Your task to perform on an android device: turn on the 24-hour format for clock Image 0: 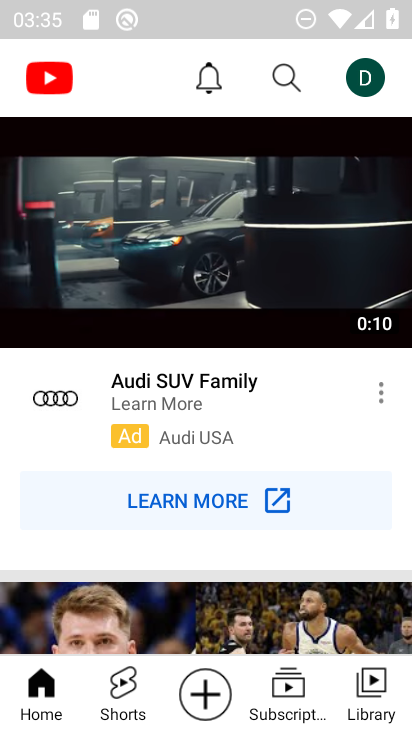
Step 0: press home button
Your task to perform on an android device: turn on the 24-hour format for clock Image 1: 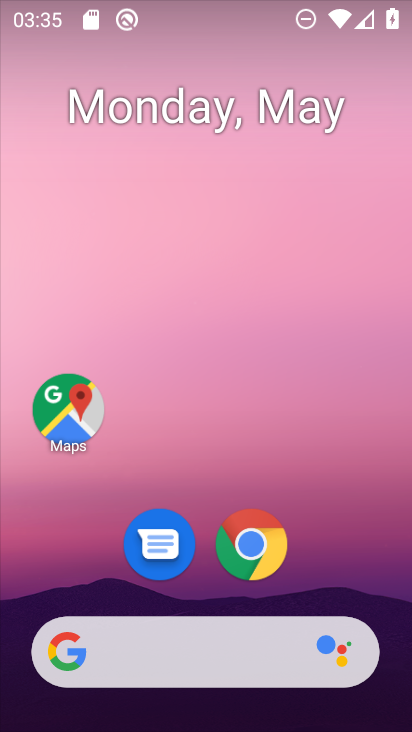
Step 1: drag from (370, 510) to (359, 174)
Your task to perform on an android device: turn on the 24-hour format for clock Image 2: 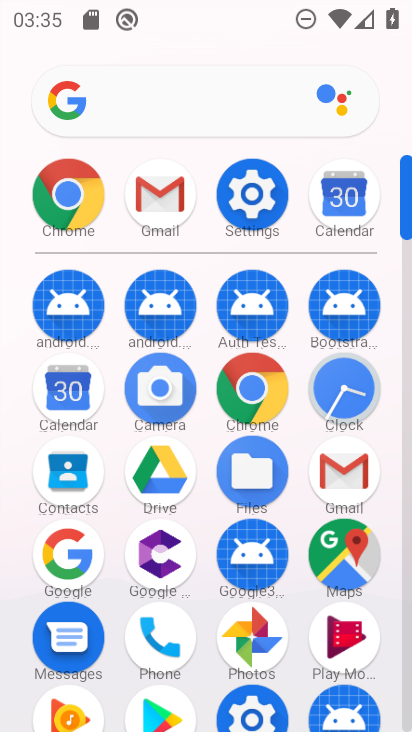
Step 2: click (344, 415)
Your task to perform on an android device: turn on the 24-hour format for clock Image 3: 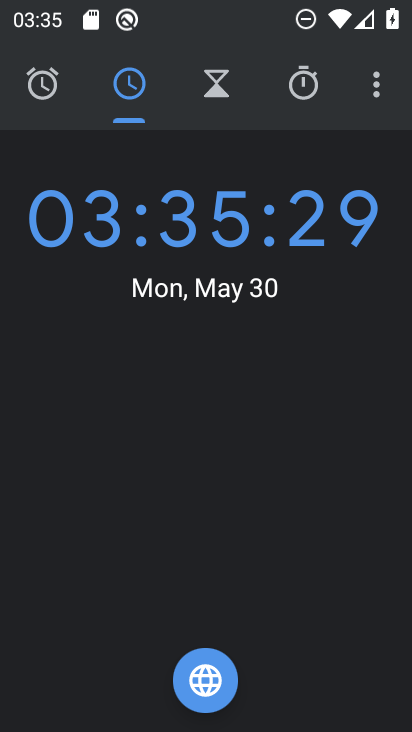
Step 3: click (376, 104)
Your task to perform on an android device: turn on the 24-hour format for clock Image 4: 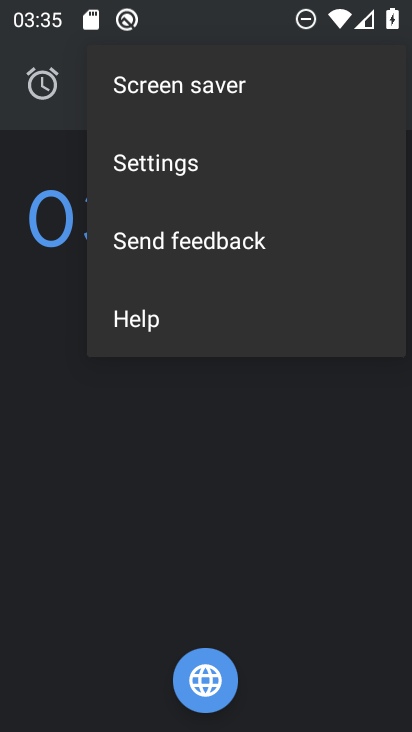
Step 4: click (205, 182)
Your task to perform on an android device: turn on the 24-hour format for clock Image 5: 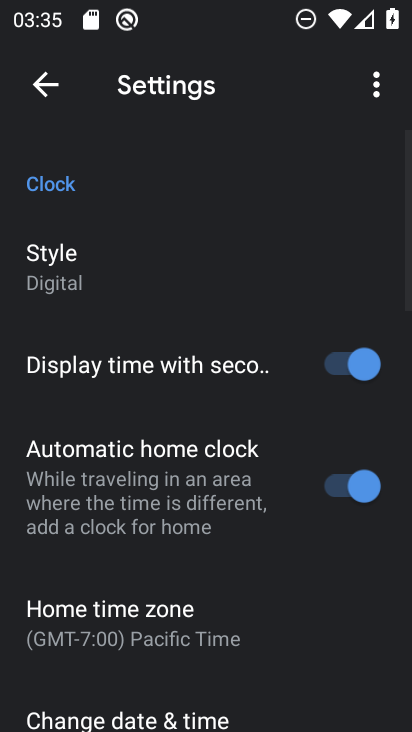
Step 5: drag from (274, 423) to (282, 356)
Your task to perform on an android device: turn on the 24-hour format for clock Image 6: 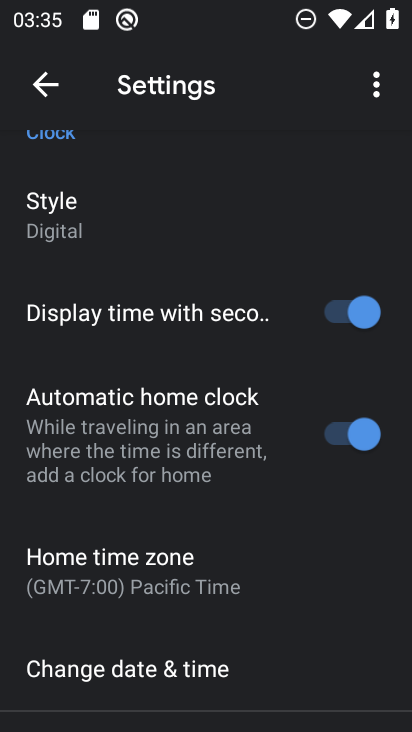
Step 6: drag from (289, 458) to (289, 364)
Your task to perform on an android device: turn on the 24-hour format for clock Image 7: 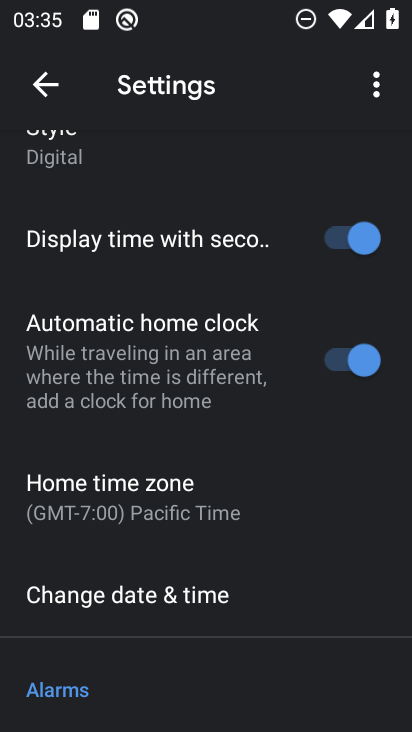
Step 7: drag from (290, 499) to (300, 426)
Your task to perform on an android device: turn on the 24-hour format for clock Image 8: 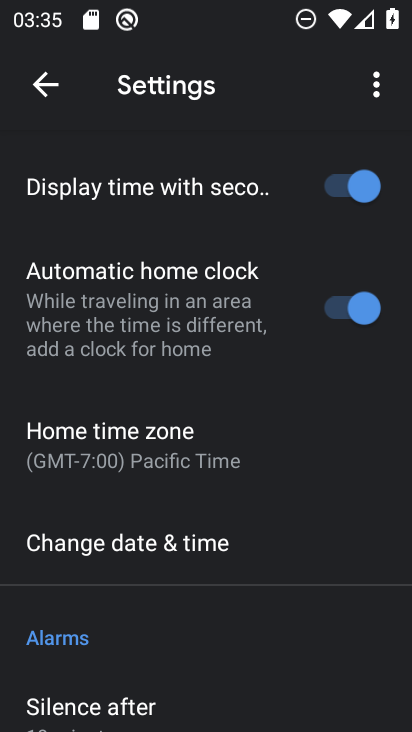
Step 8: drag from (291, 509) to (289, 395)
Your task to perform on an android device: turn on the 24-hour format for clock Image 9: 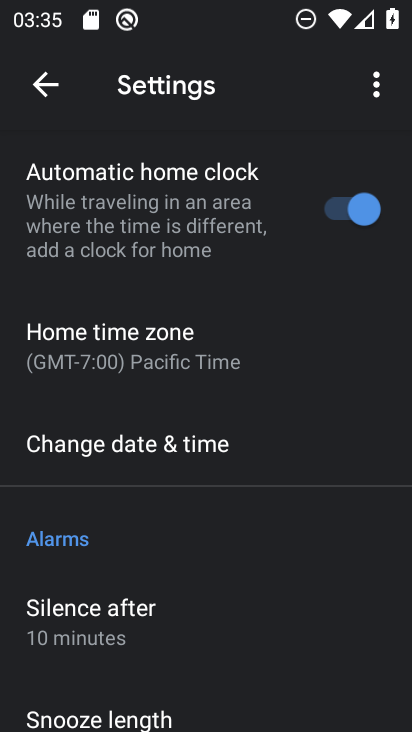
Step 9: drag from (296, 492) to (295, 405)
Your task to perform on an android device: turn on the 24-hour format for clock Image 10: 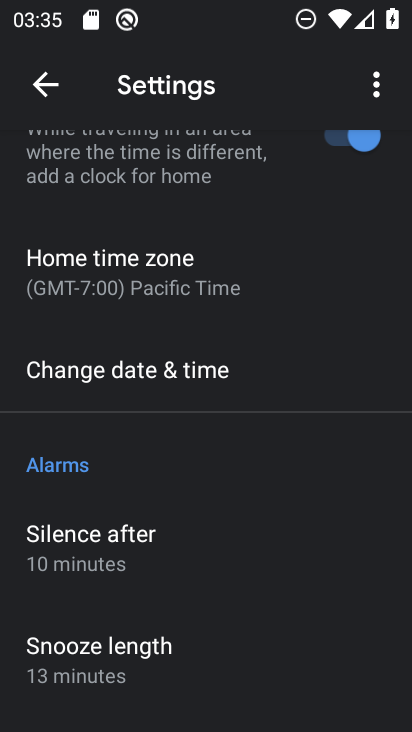
Step 10: click (235, 370)
Your task to perform on an android device: turn on the 24-hour format for clock Image 11: 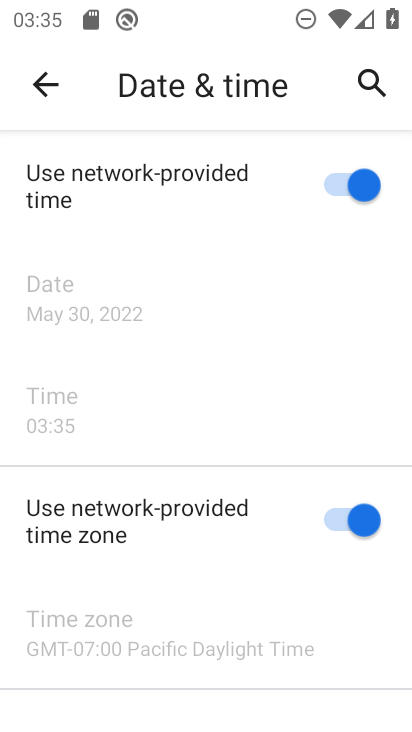
Step 11: task complete